Your task to perform on an android device: Go to Maps Image 0: 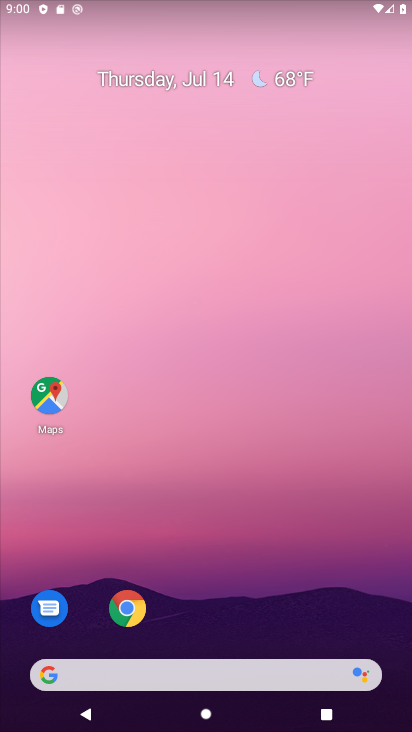
Step 0: click (52, 400)
Your task to perform on an android device: Go to Maps Image 1: 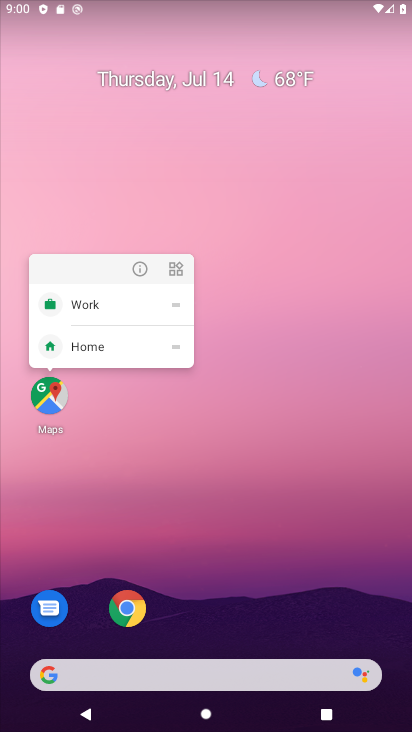
Step 1: click (52, 400)
Your task to perform on an android device: Go to Maps Image 2: 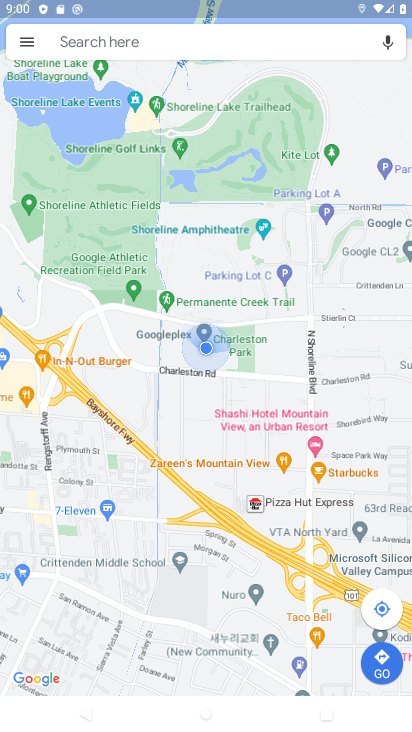
Step 2: task complete